Your task to perform on an android device: turn on sleep mode Image 0: 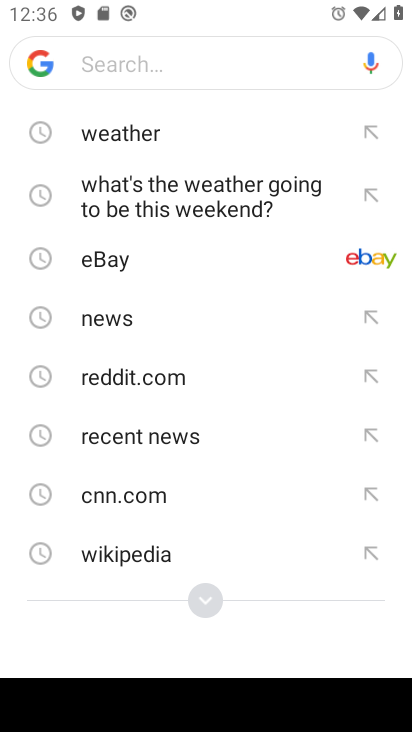
Step 0: press home button
Your task to perform on an android device: turn on sleep mode Image 1: 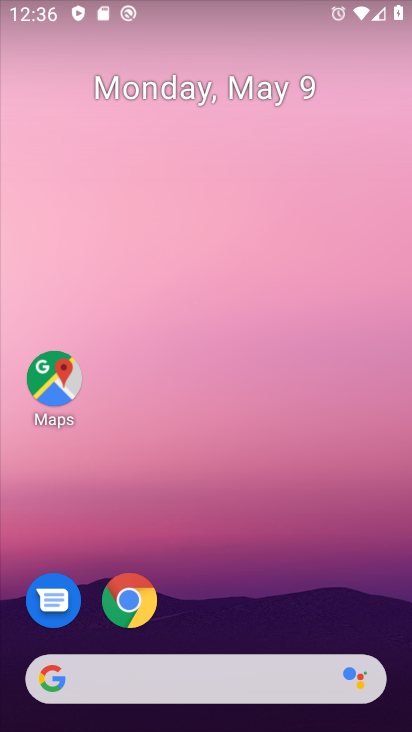
Step 1: drag from (177, 550) to (244, 201)
Your task to perform on an android device: turn on sleep mode Image 2: 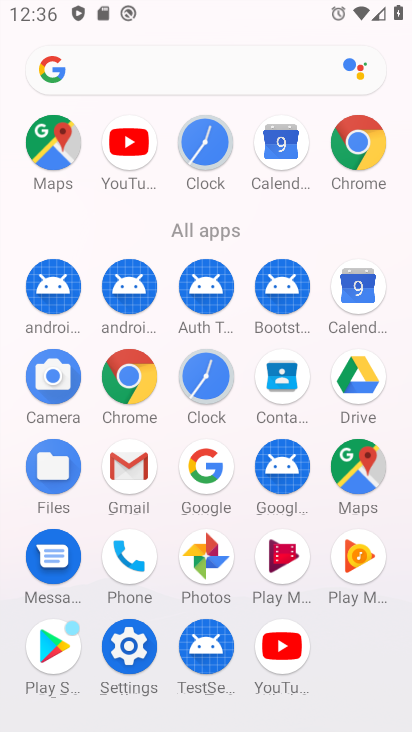
Step 2: click (126, 640)
Your task to perform on an android device: turn on sleep mode Image 3: 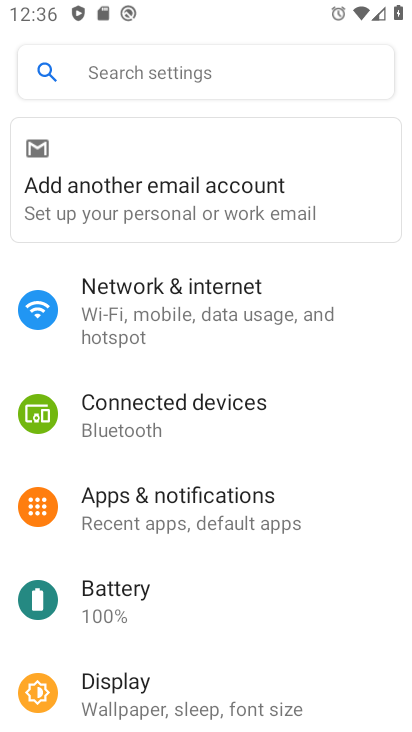
Step 3: click (179, 694)
Your task to perform on an android device: turn on sleep mode Image 4: 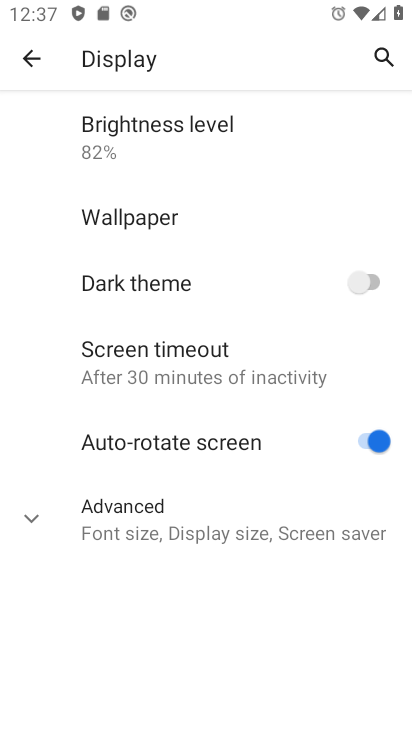
Step 4: click (168, 516)
Your task to perform on an android device: turn on sleep mode Image 5: 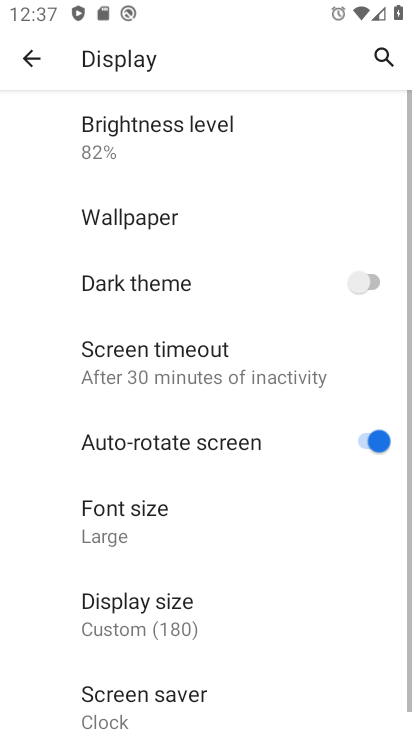
Step 5: drag from (161, 638) to (227, 419)
Your task to perform on an android device: turn on sleep mode Image 6: 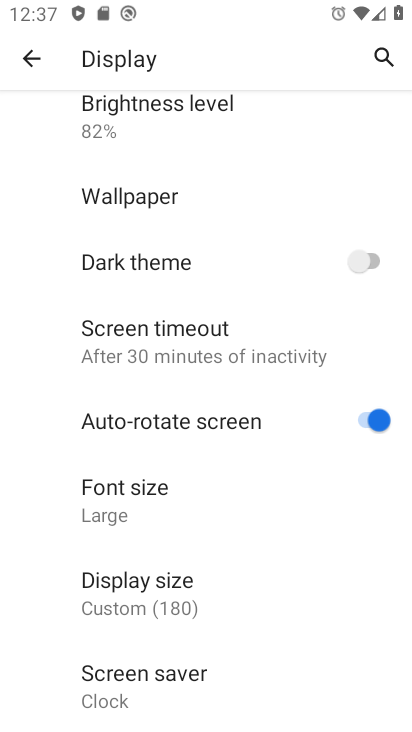
Step 6: drag from (150, 637) to (200, 477)
Your task to perform on an android device: turn on sleep mode Image 7: 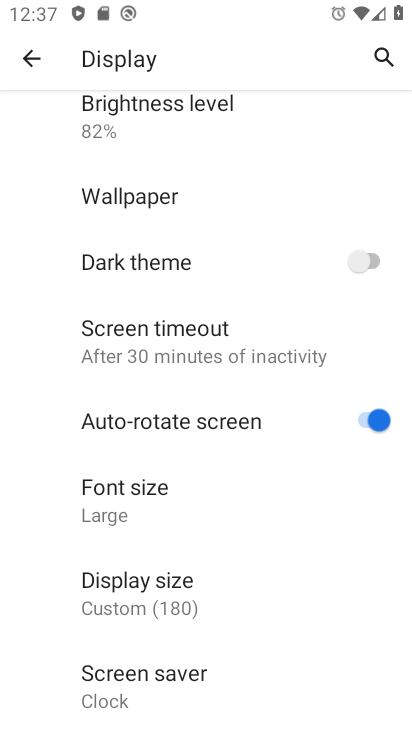
Step 7: click (206, 345)
Your task to perform on an android device: turn on sleep mode Image 8: 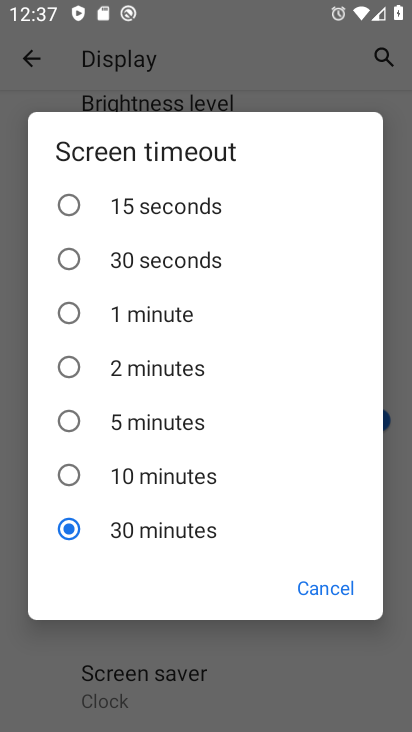
Step 8: click (308, 577)
Your task to perform on an android device: turn on sleep mode Image 9: 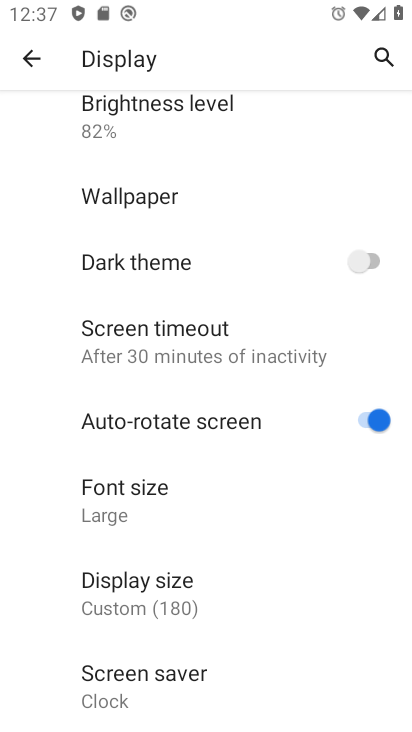
Step 9: drag from (256, 125) to (256, 499)
Your task to perform on an android device: turn on sleep mode Image 10: 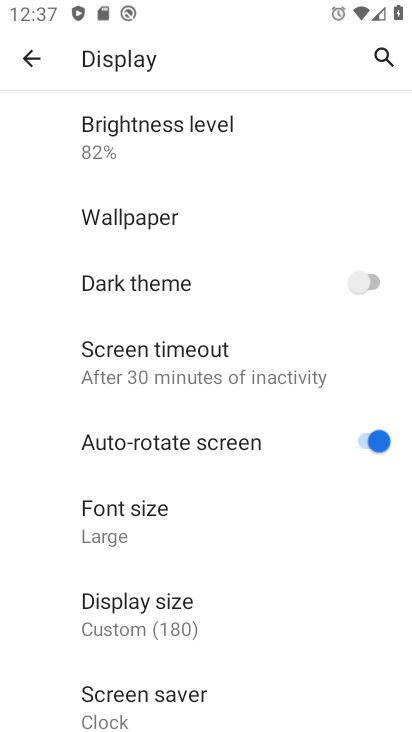
Step 10: click (374, 50)
Your task to perform on an android device: turn on sleep mode Image 11: 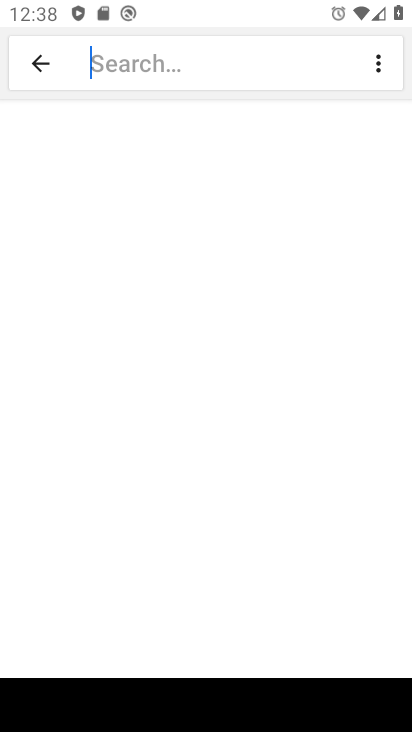
Step 11: type "sleepmode  "
Your task to perform on an android device: turn on sleep mode Image 12: 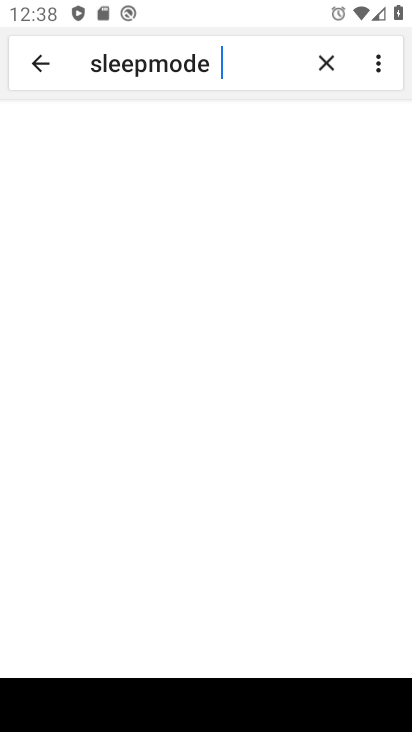
Step 12: click (241, 56)
Your task to perform on an android device: turn on sleep mode Image 13: 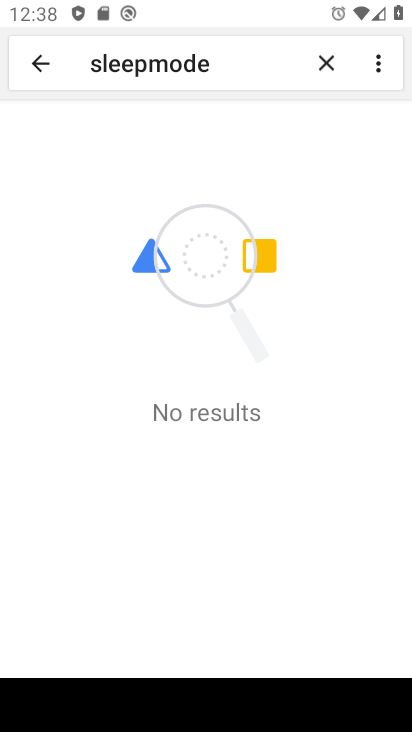
Step 13: click (370, 49)
Your task to perform on an android device: turn on sleep mode Image 14: 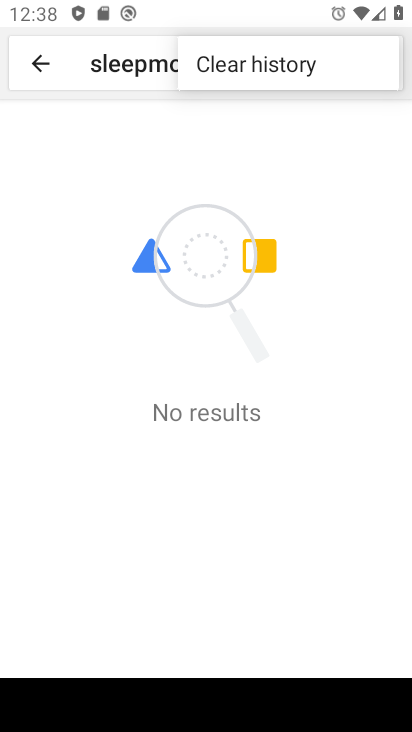
Step 14: click (28, 62)
Your task to perform on an android device: turn on sleep mode Image 15: 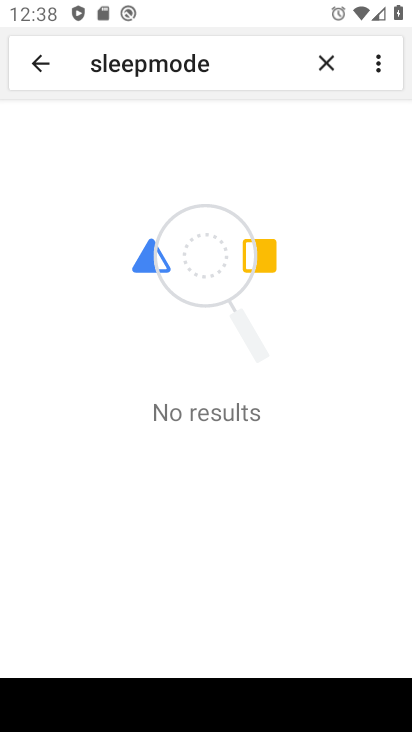
Step 15: click (26, 58)
Your task to perform on an android device: turn on sleep mode Image 16: 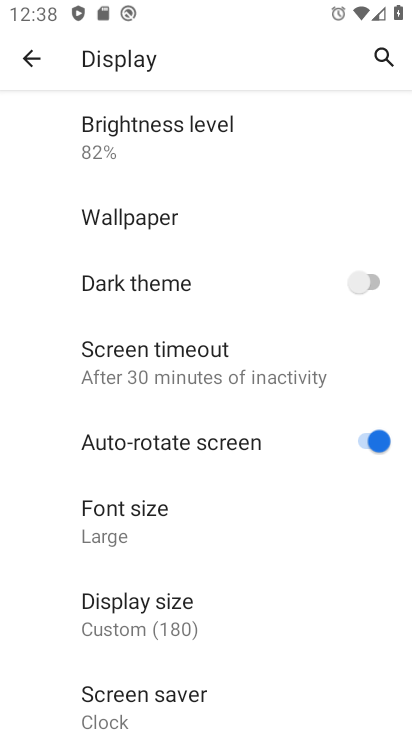
Step 16: task complete